Your task to perform on an android device: add a label to a message in the gmail app Image 0: 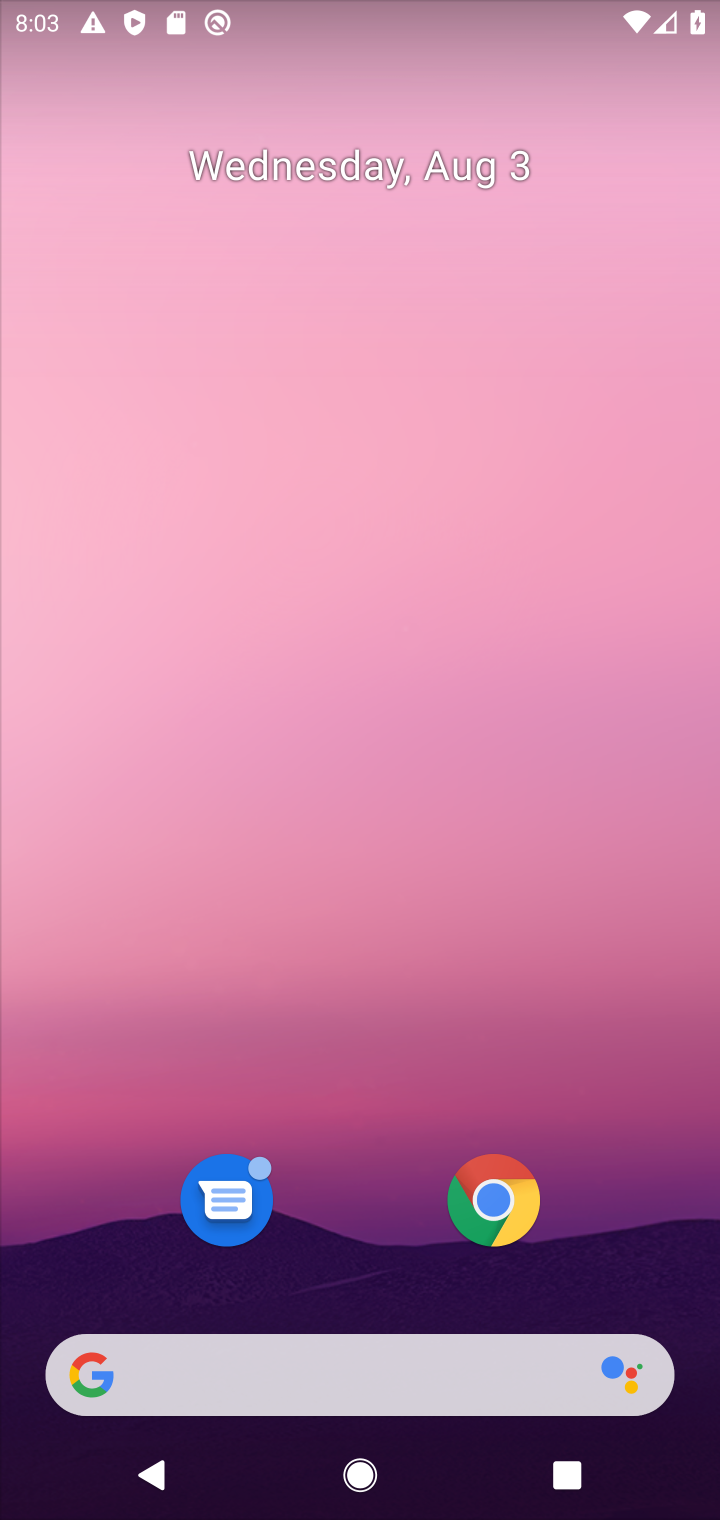
Step 0: drag from (640, 1231) to (609, 253)
Your task to perform on an android device: add a label to a message in the gmail app Image 1: 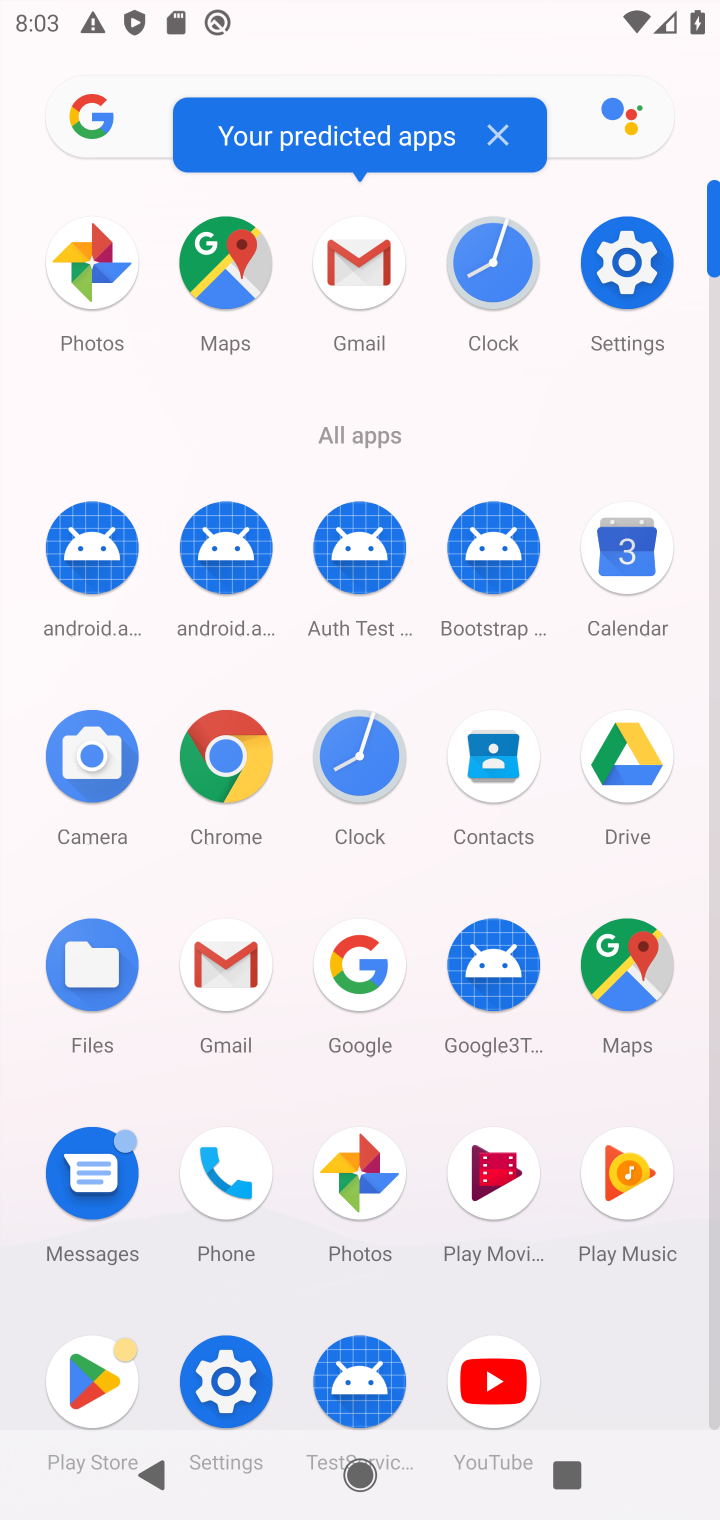
Step 1: click (225, 964)
Your task to perform on an android device: add a label to a message in the gmail app Image 2: 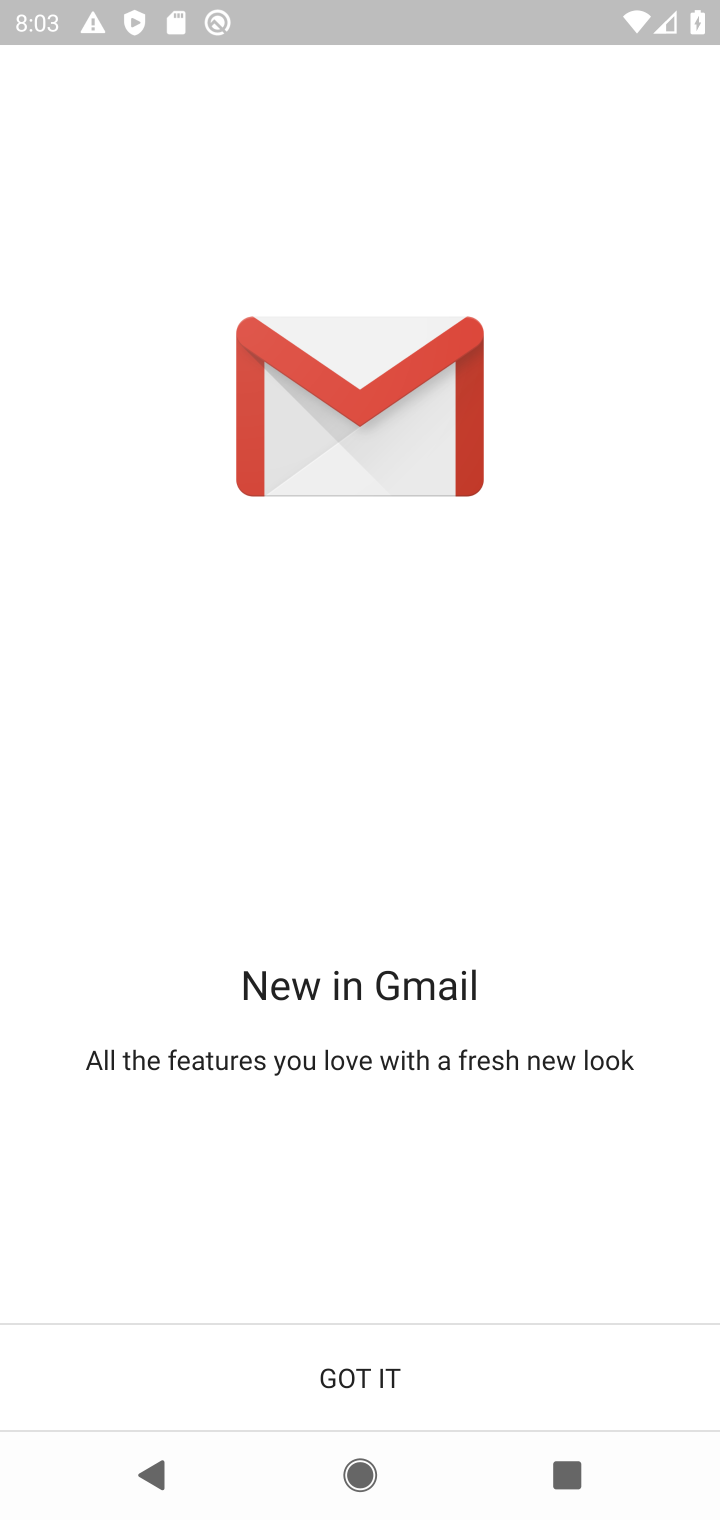
Step 2: click (371, 1374)
Your task to perform on an android device: add a label to a message in the gmail app Image 3: 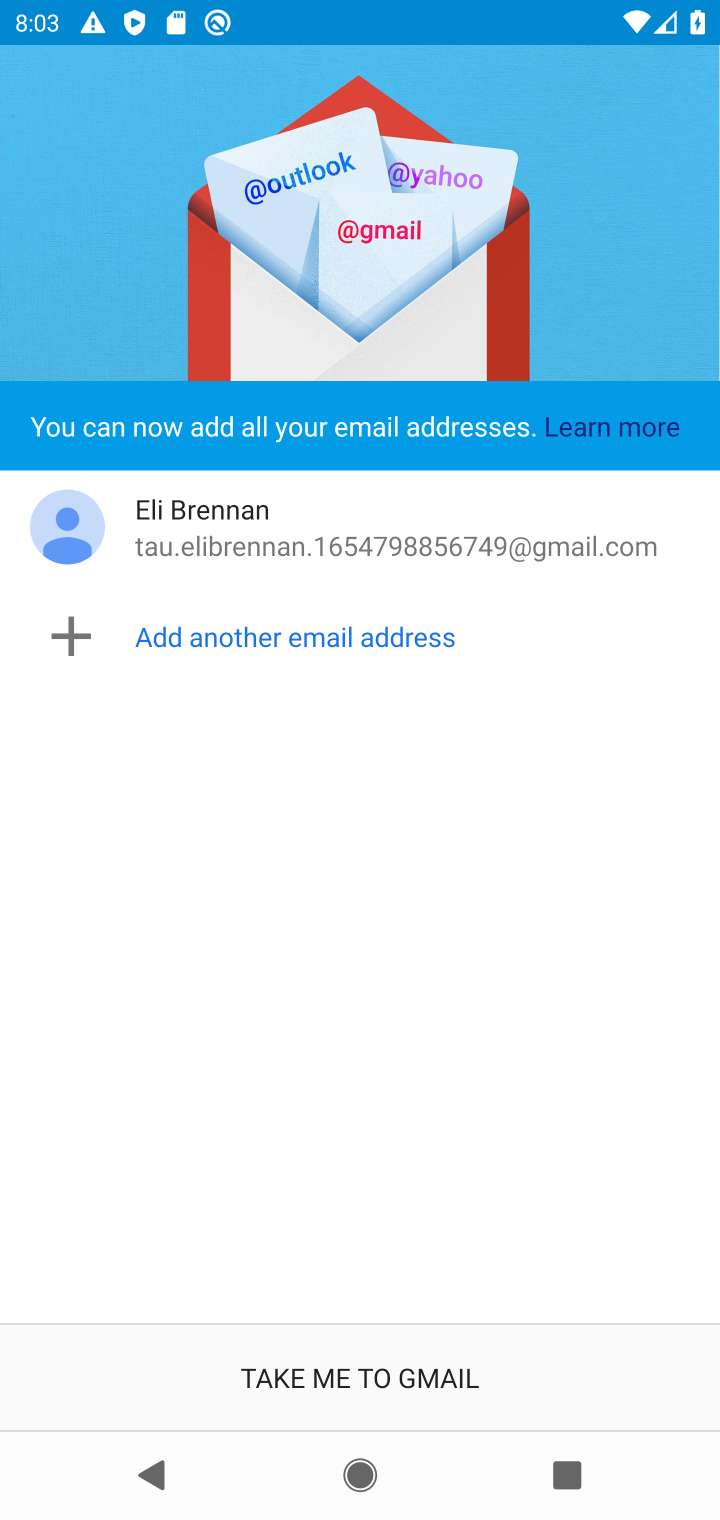
Step 3: click (371, 1374)
Your task to perform on an android device: add a label to a message in the gmail app Image 4: 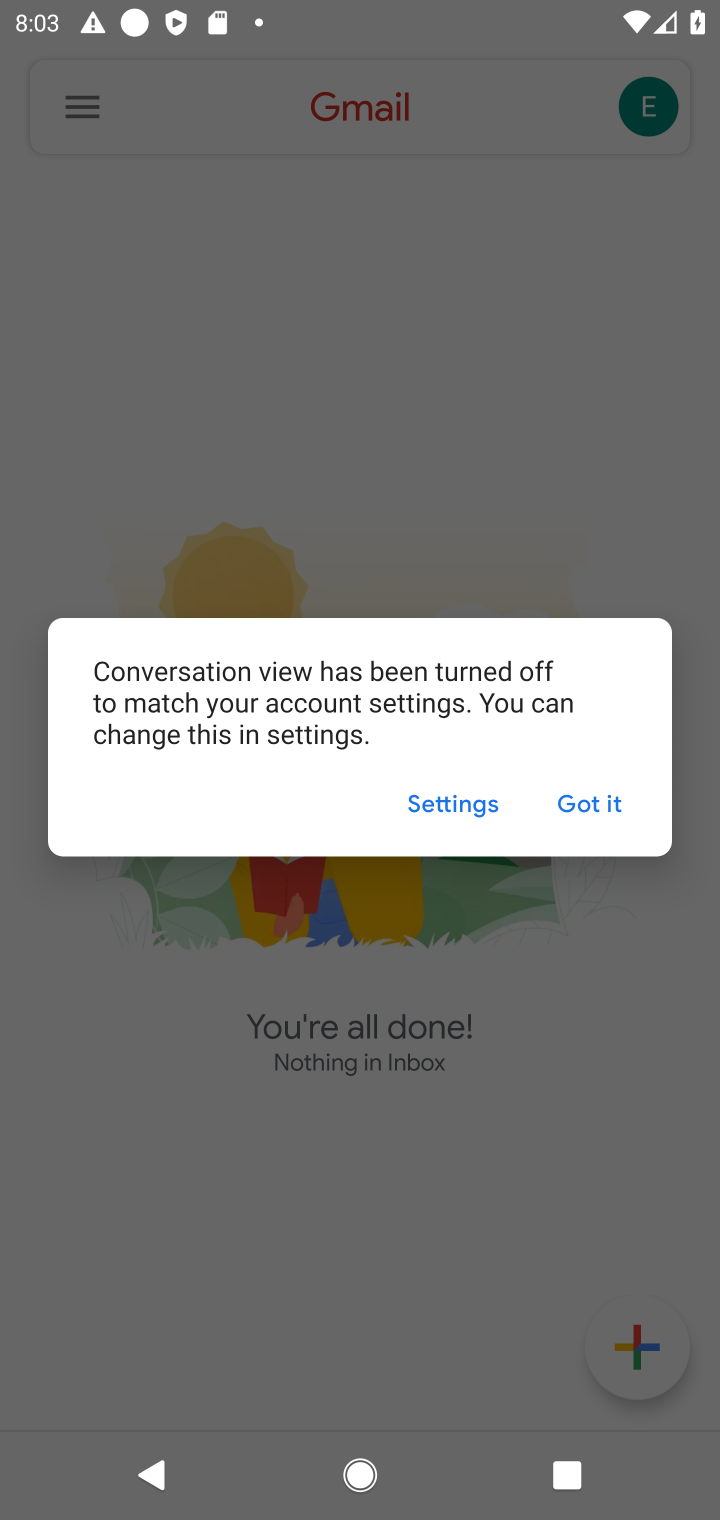
Step 4: click (591, 800)
Your task to perform on an android device: add a label to a message in the gmail app Image 5: 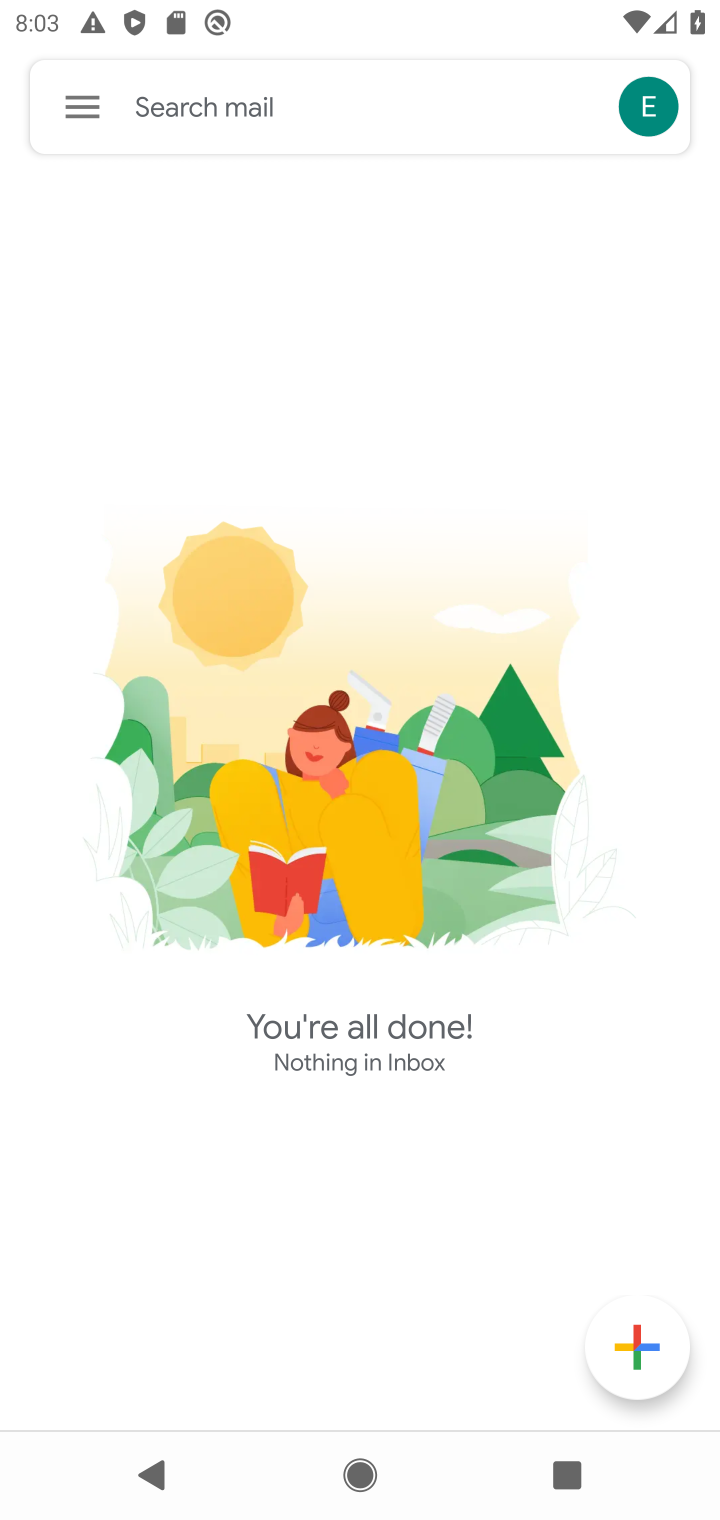
Step 5: click (67, 115)
Your task to perform on an android device: add a label to a message in the gmail app Image 6: 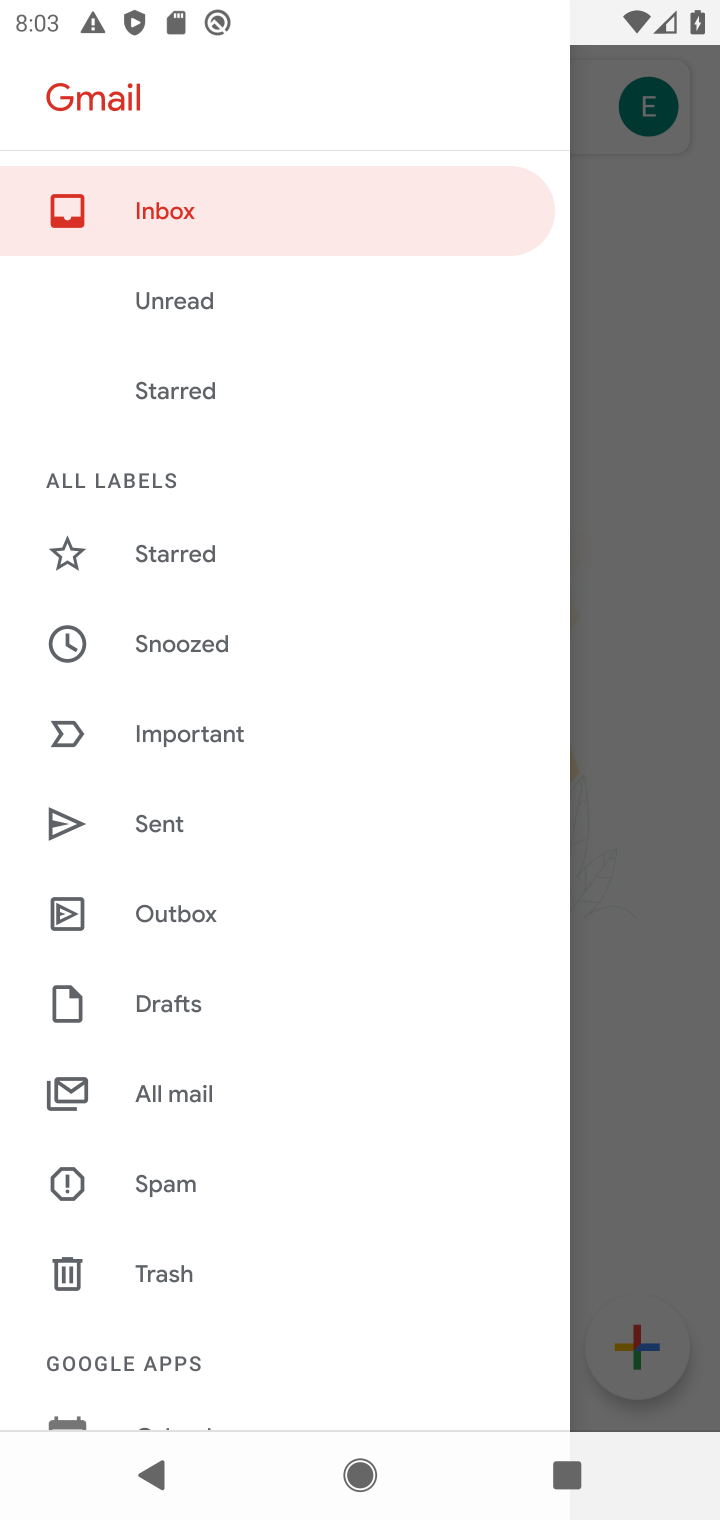
Step 6: click (182, 1082)
Your task to perform on an android device: add a label to a message in the gmail app Image 7: 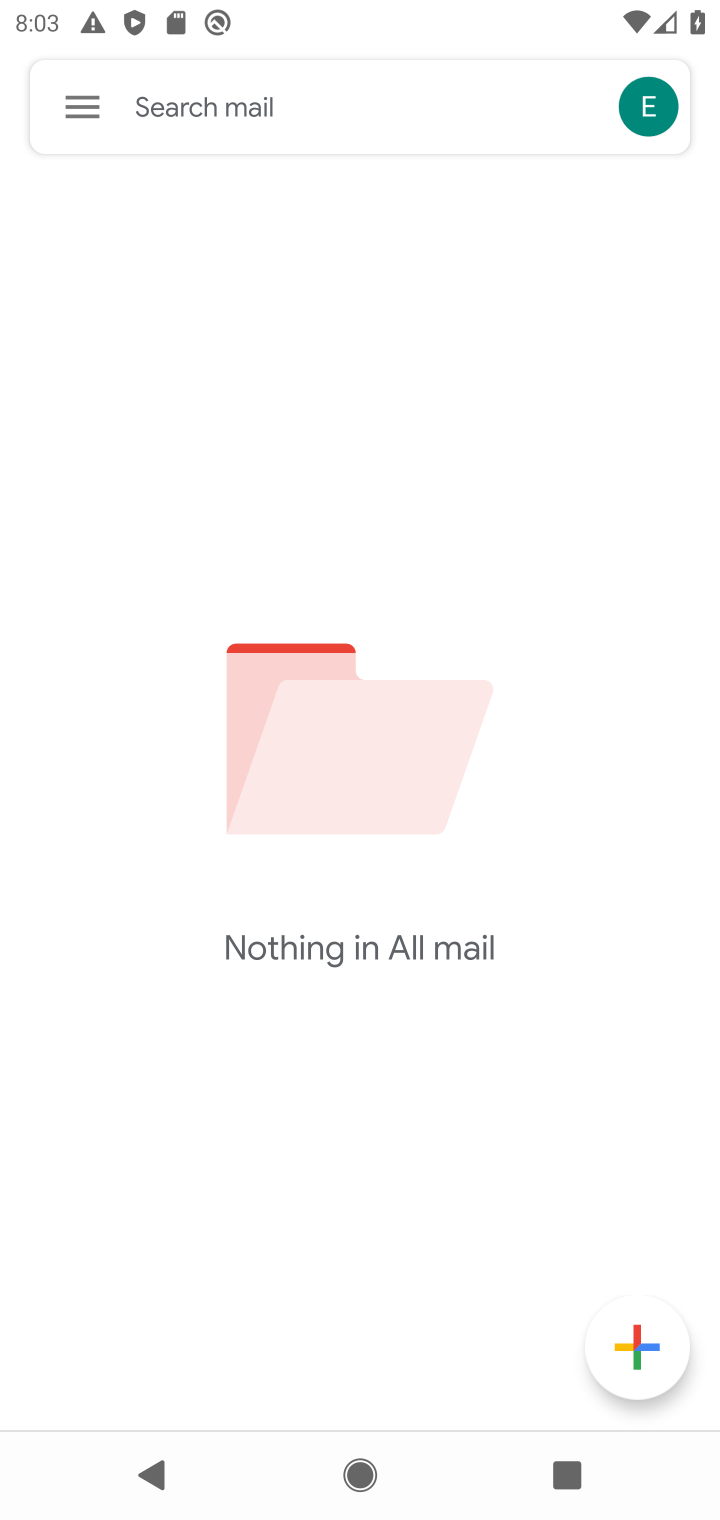
Step 7: task complete